Your task to perform on an android device: Open the Play Movies app and select the watchlist tab. Image 0: 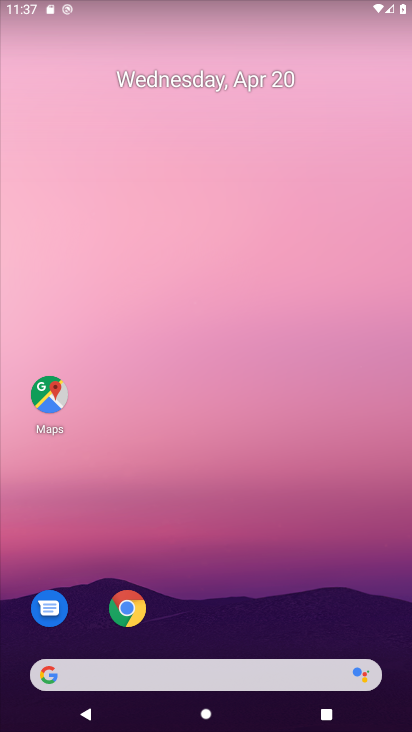
Step 0: drag from (206, 419) to (237, 124)
Your task to perform on an android device: Open the Play Movies app and select the watchlist tab. Image 1: 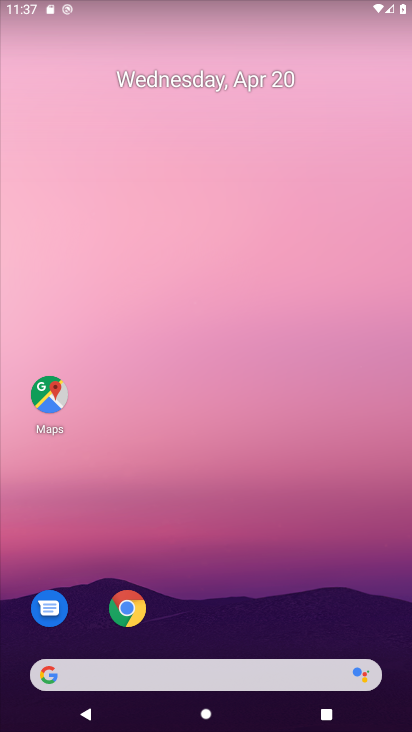
Step 1: drag from (194, 588) to (247, 10)
Your task to perform on an android device: Open the Play Movies app and select the watchlist tab. Image 2: 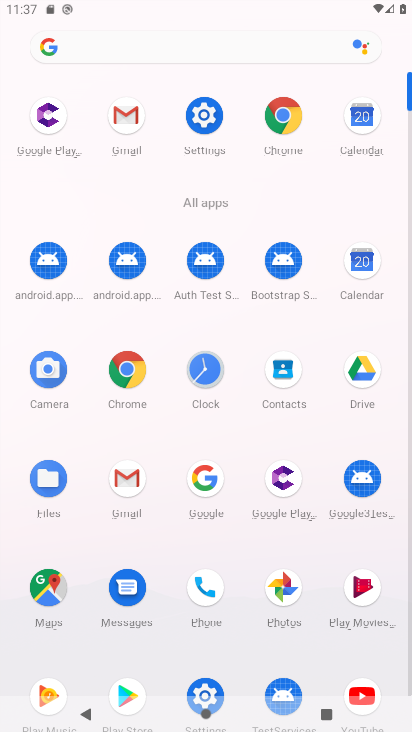
Step 2: drag from (232, 595) to (277, 103)
Your task to perform on an android device: Open the Play Movies app and select the watchlist tab. Image 3: 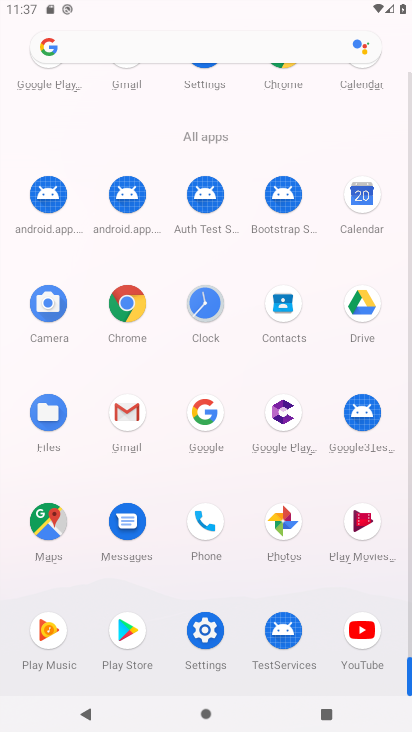
Step 3: click (353, 527)
Your task to perform on an android device: Open the Play Movies app and select the watchlist tab. Image 4: 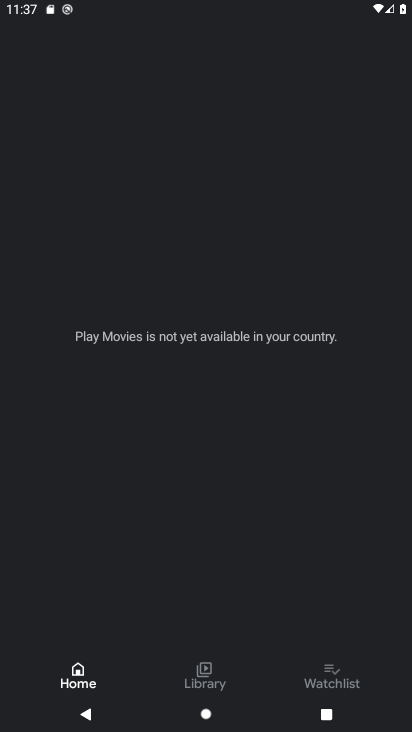
Step 4: click (330, 671)
Your task to perform on an android device: Open the Play Movies app and select the watchlist tab. Image 5: 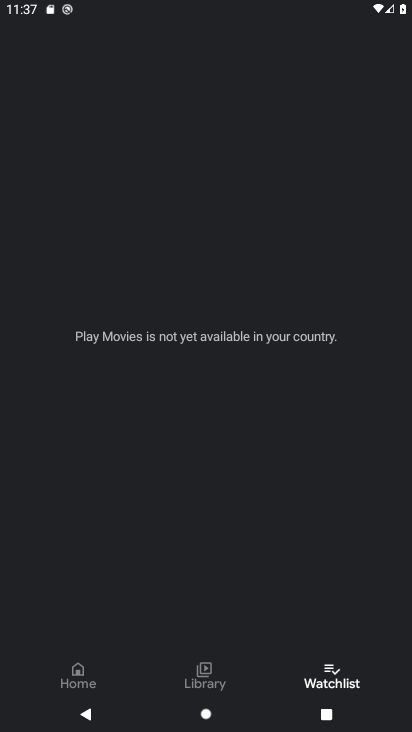
Step 5: task complete